Your task to perform on an android device: turn on bluetooth scan Image 0: 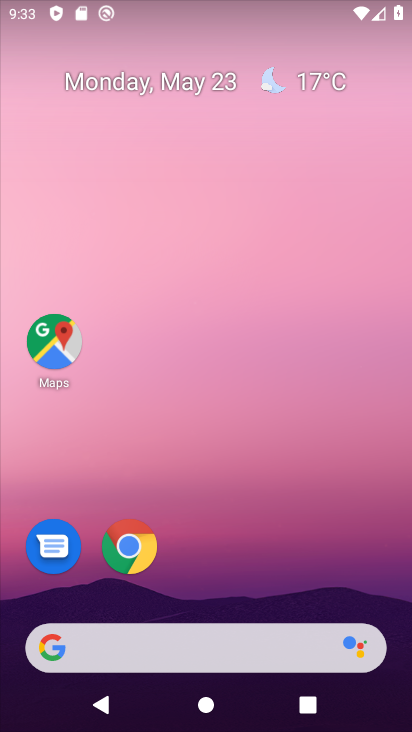
Step 0: drag from (302, 579) to (217, 90)
Your task to perform on an android device: turn on bluetooth scan Image 1: 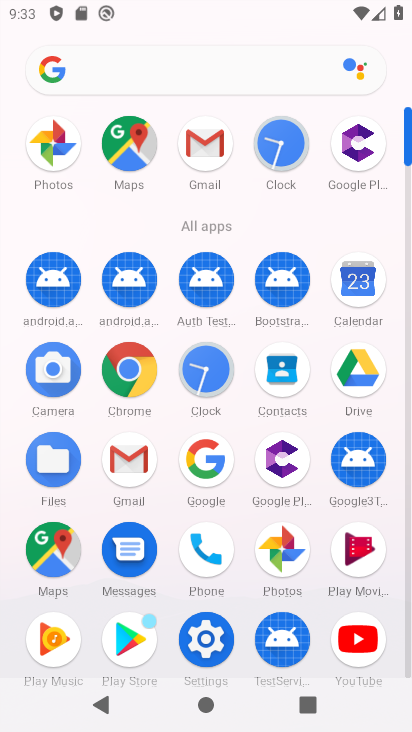
Step 1: click (210, 624)
Your task to perform on an android device: turn on bluetooth scan Image 2: 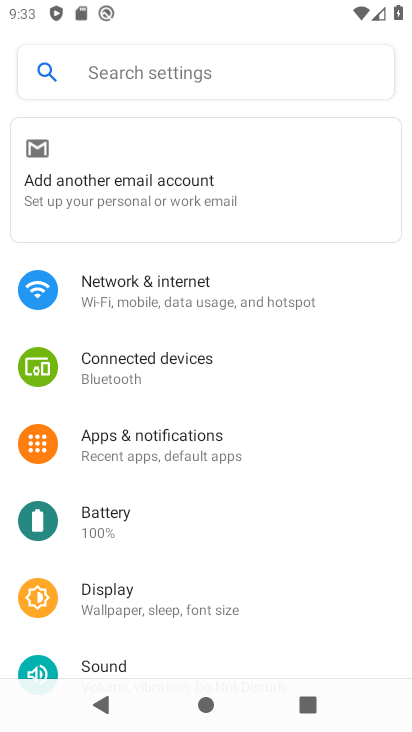
Step 2: drag from (261, 486) to (273, 4)
Your task to perform on an android device: turn on bluetooth scan Image 3: 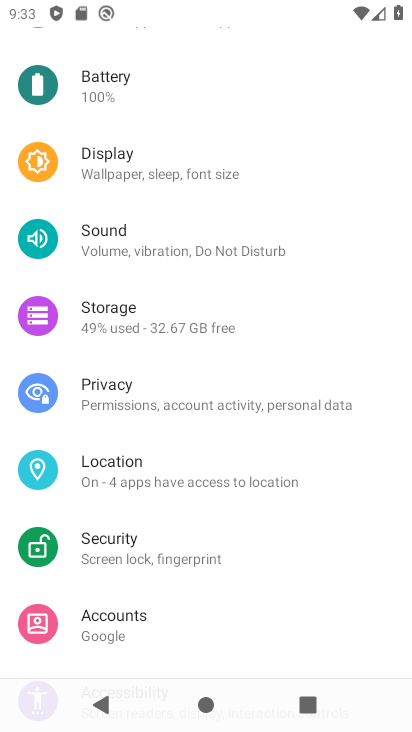
Step 3: click (165, 484)
Your task to perform on an android device: turn on bluetooth scan Image 4: 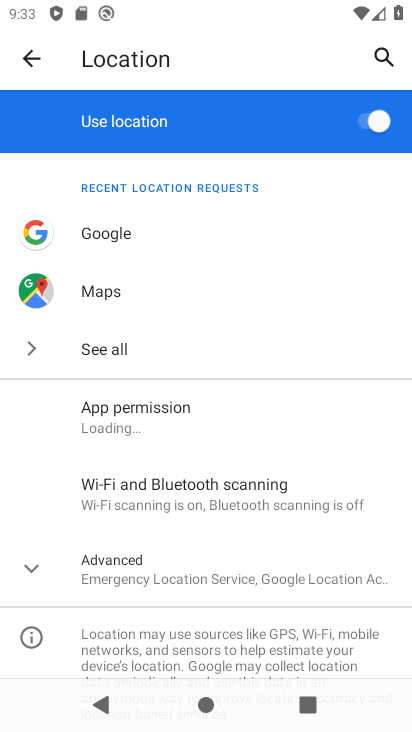
Step 4: click (181, 591)
Your task to perform on an android device: turn on bluetooth scan Image 5: 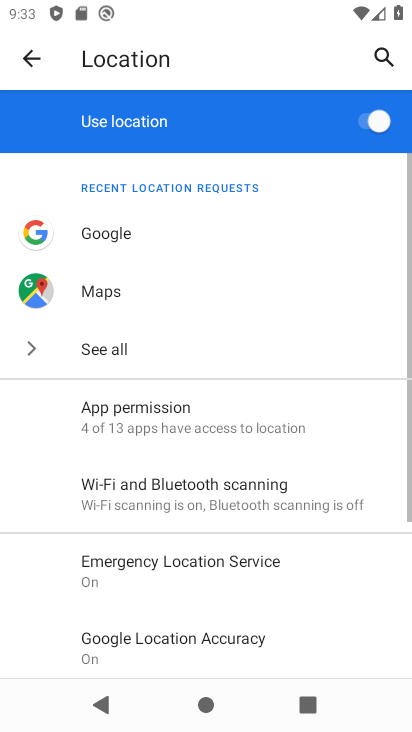
Step 5: drag from (221, 655) to (276, 256)
Your task to perform on an android device: turn on bluetooth scan Image 6: 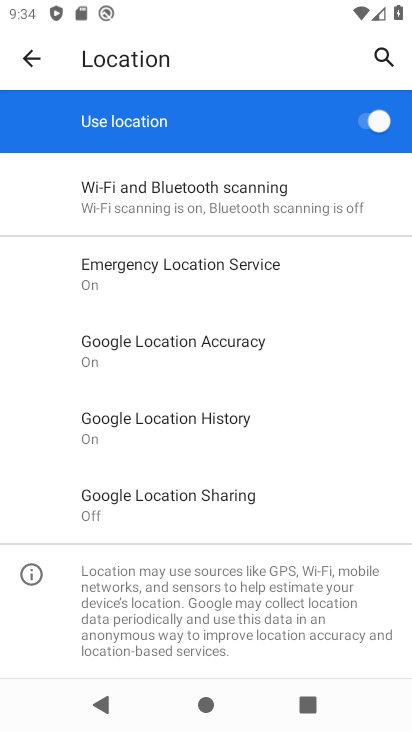
Step 6: click (112, 197)
Your task to perform on an android device: turn on bluetooth scan Image 7: 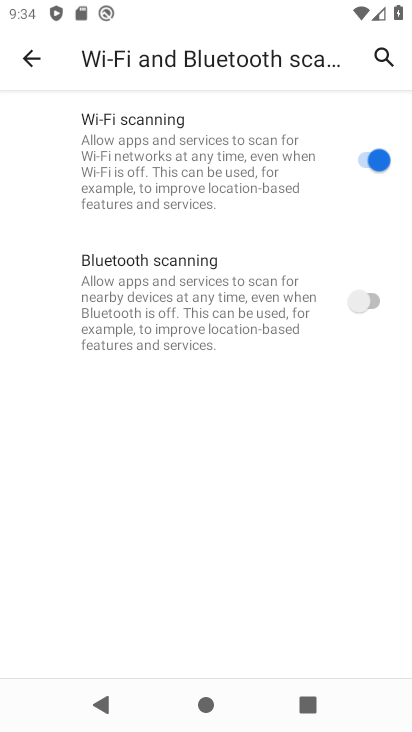
Step 7: click (361, 293)
Your task to perform on an android device: turn on bluetooth scan Image 8: 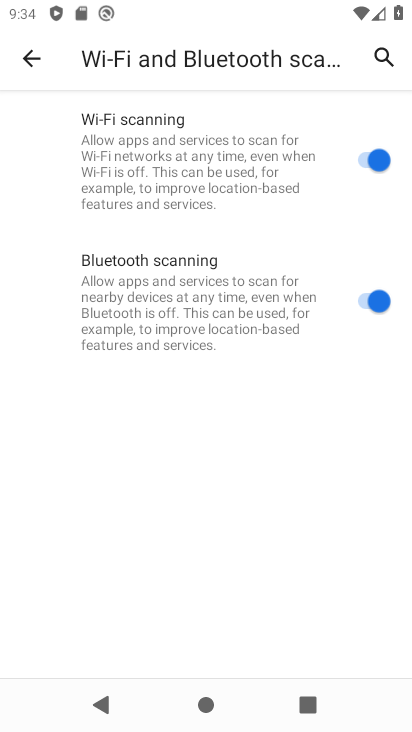
Step 8: task complete